Your task to perform on an android device: Turn off the flashlight Image 0: 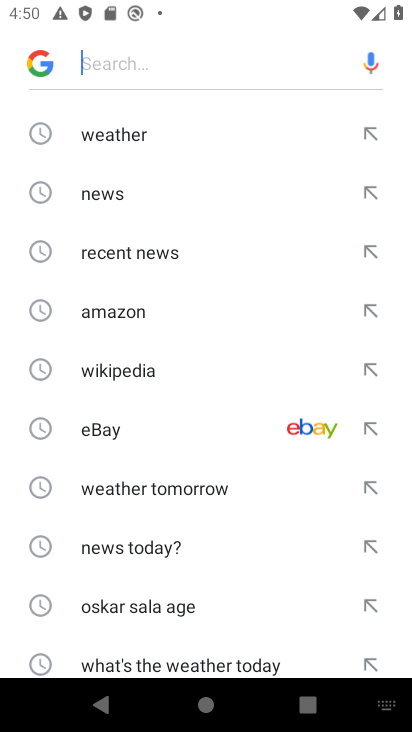
Step 0: task impossible